Your task to perform on an android device: toggle javascript in the chrome app Image 0: 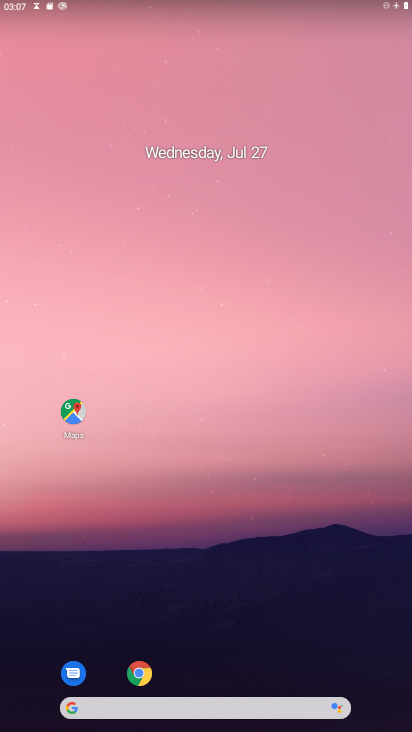
Step 0: drag from (205, 665) to (207, 306)
Your task to perform on an android device: toggle javascript in the chrome app Image 1: 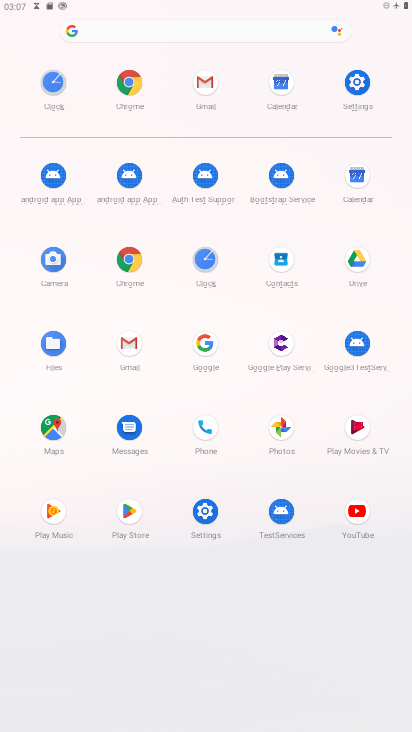
Step 1: click (131, 84)
Your task to perform on an android device: toggle javascript in the chrome app Image 2: 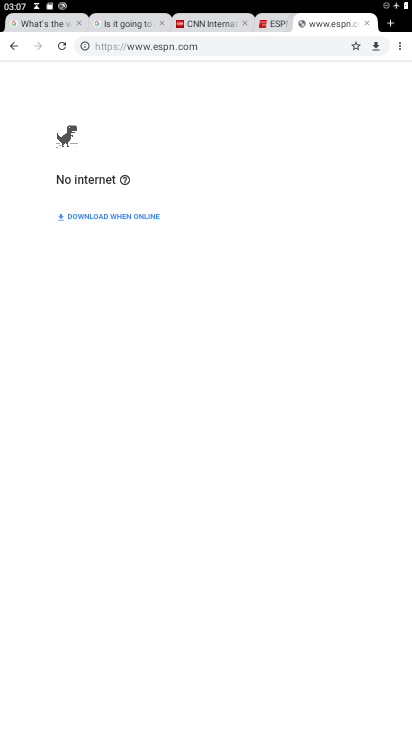
Step 2: click (392, 48)
Your task to perform on an android device: toggle javascript in the chrome app Image 3: 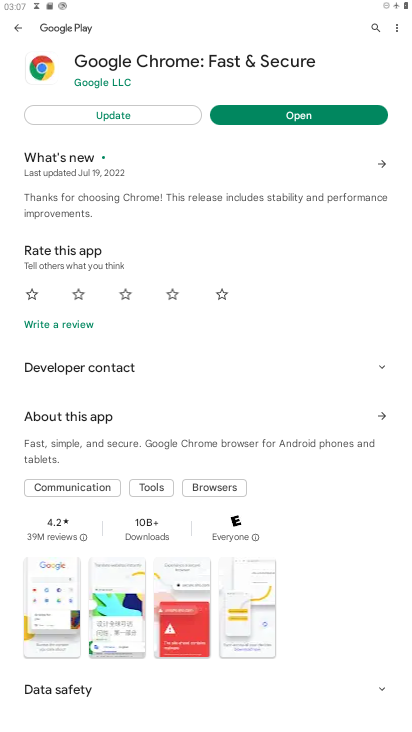
Step 3: press back button
Your task to perform on an android device: toggle javascript in the chrome app Image 4: 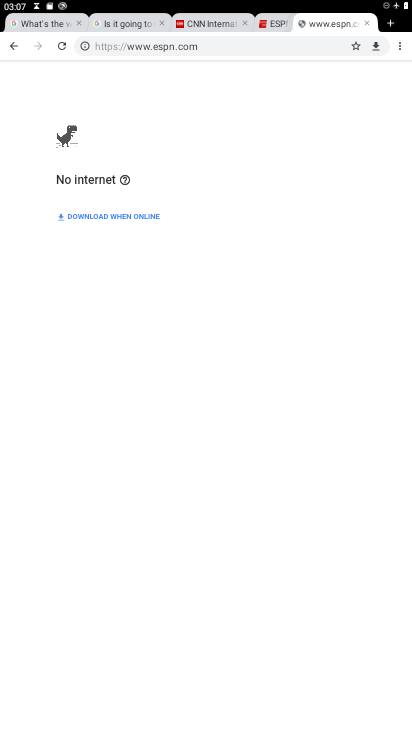
Step 4: click (396, 49)
Your task to perform on an android device: toggle javascript in the chrome app Image 5: 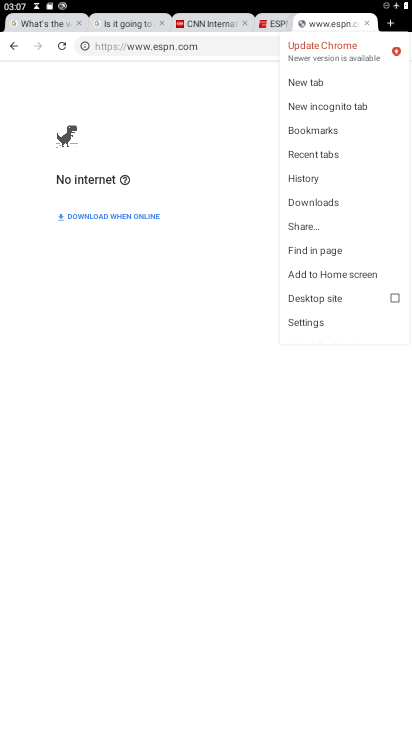
Step 5: click (314, 322)
Your task to perform on an android device: toggle javascript in the chrome app Image 6: 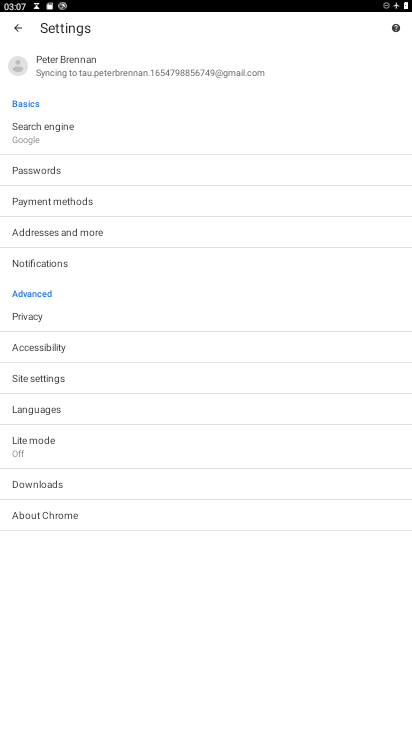
Step 6: click (52, 379)
Your task to perform on an android device: toggle javascript in the chrome app Image 7: 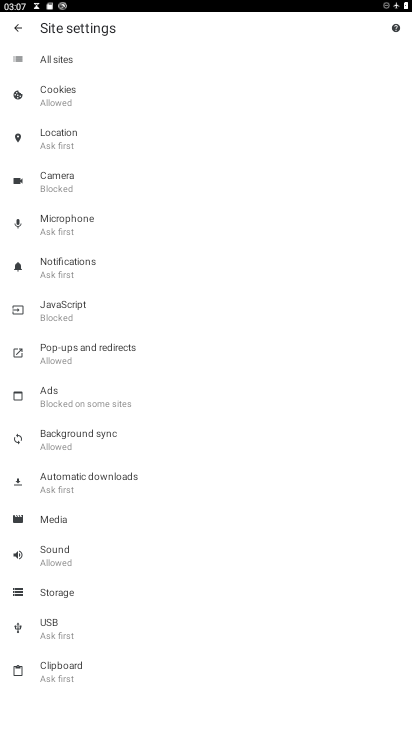
Step 7: click (83, 296)
Your task to perform on an android device: toggle javascript in the chrome app Image 8: 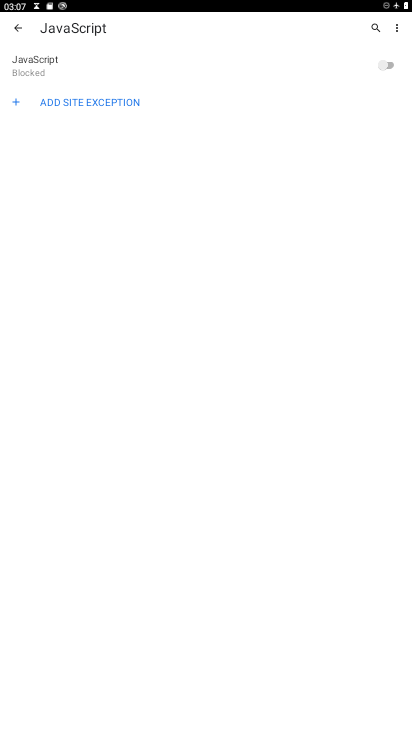
Step 8: click (394, 64)
Your task to perform on an android device: toggle javascript in the chrome app Image 9: 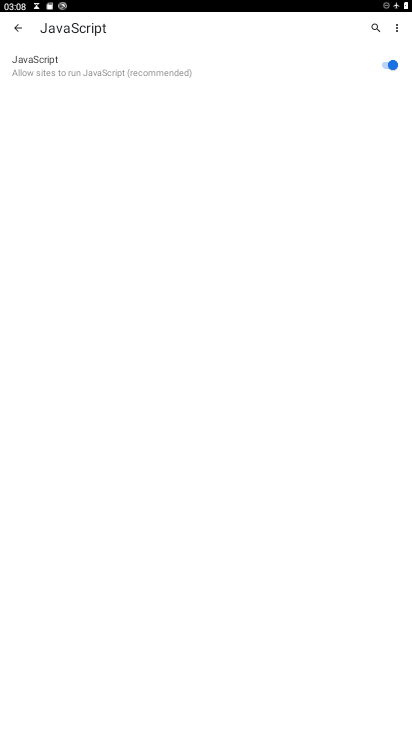
Step 9: task complete